Your task to perform on an android device: Go to network settings Image 0: 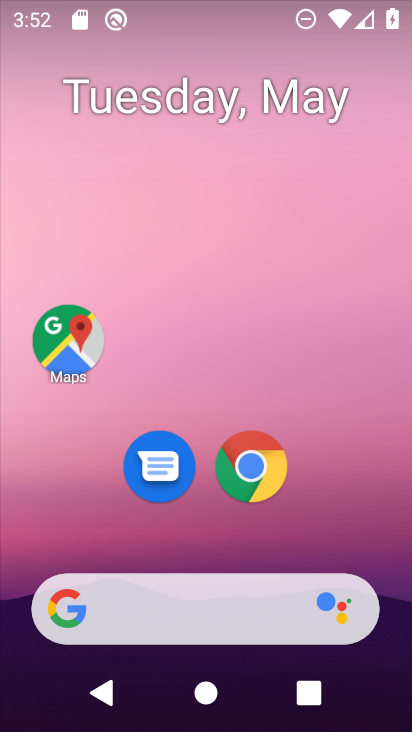
Step 0: drag from (348, 513) to (359, 44)
Your task to perform on an android device: Go to network settings Image 1: 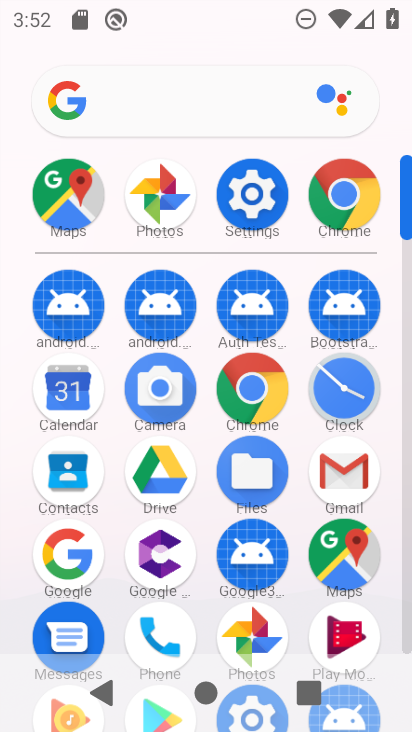
Step 1: click (260, 191)
Your task to perform on an android device: Go to network settings Image 2: 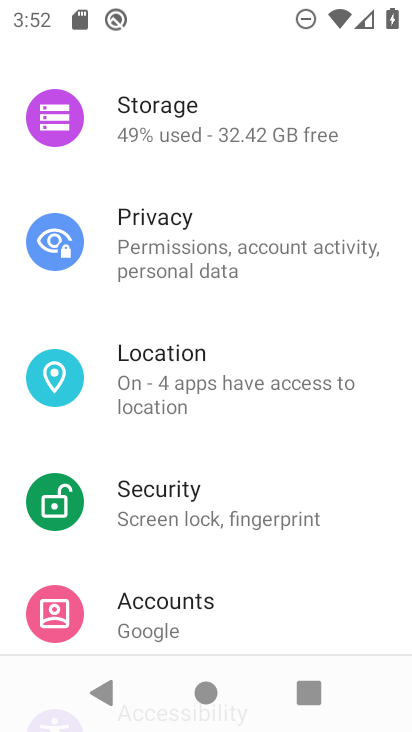
Step 2: drag from (278, 525) to (274, 315)
Your task to perform on an android device: Go to network settings Image 3: 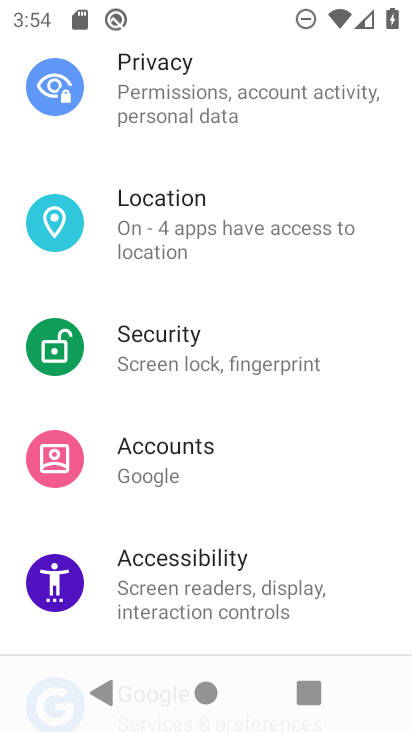
Step 3: drag from (226, 252) to (364, 693)
Your task to perform on an android device: Go to network settings Image 4: 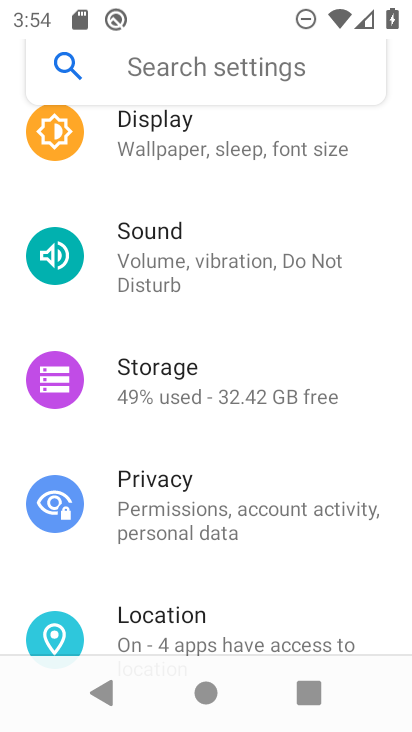
Step 4: drag from (218, 229) to (92, 661)
Your task to perform on an android device: Go to network settings Image 5: 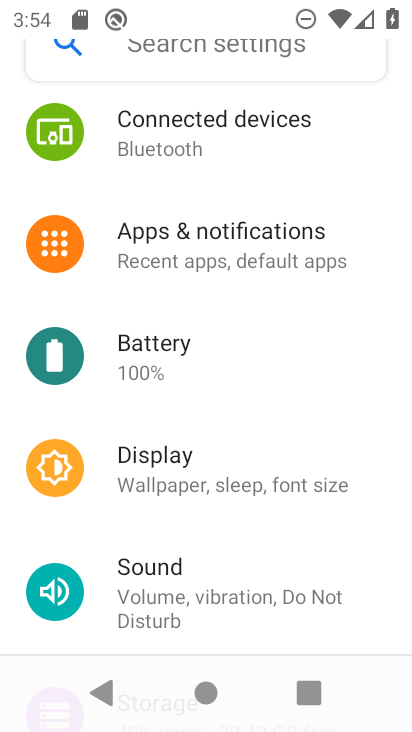
Step 5: drag from (242, 298) to (122, 727)
Your task to perform on an android device: Go to network settings Image 6: 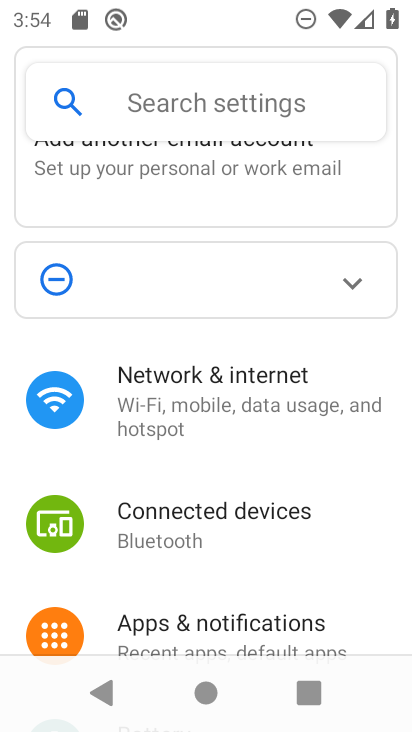
Step 6: click (151, 423)
Your task to perform on an android device: Go to network settings Image 7: 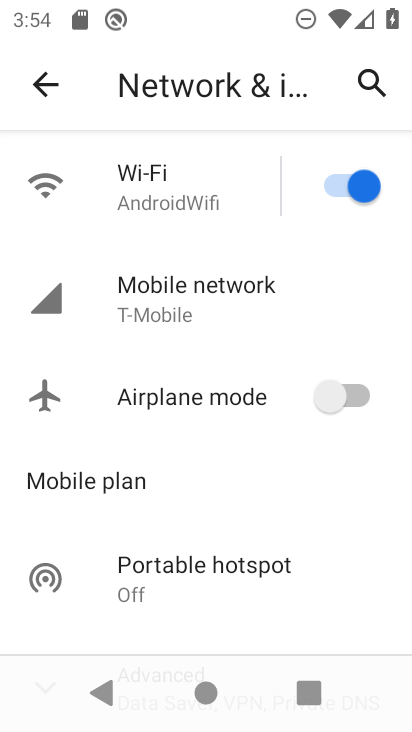
Step 7: task complete